Your task to perform on an android device: change timer sound Image 0: 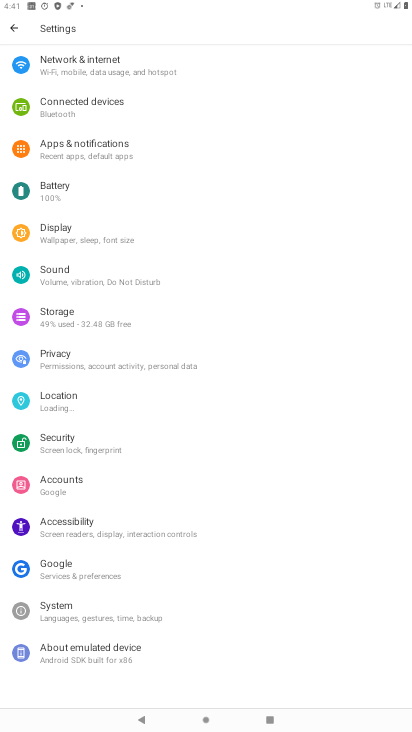
Step 0: press home button
Your task to perform on an android device: change timer sound Image 1: 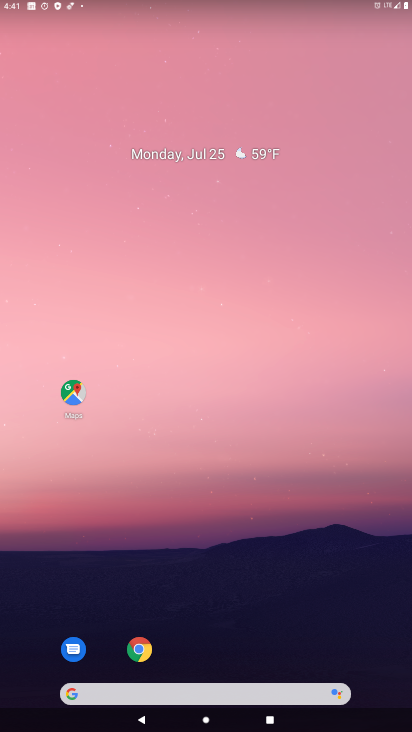
Step 1: drag from (239, 658) to (203, 8)
Your task to perform on an android device: change timer sound Image 2: 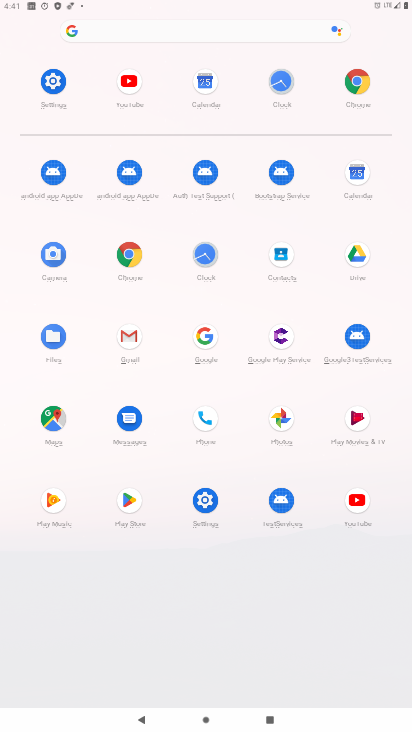
Step 2: click (282, 85)
Your task to perform on an android device: change timer sound Image 3: 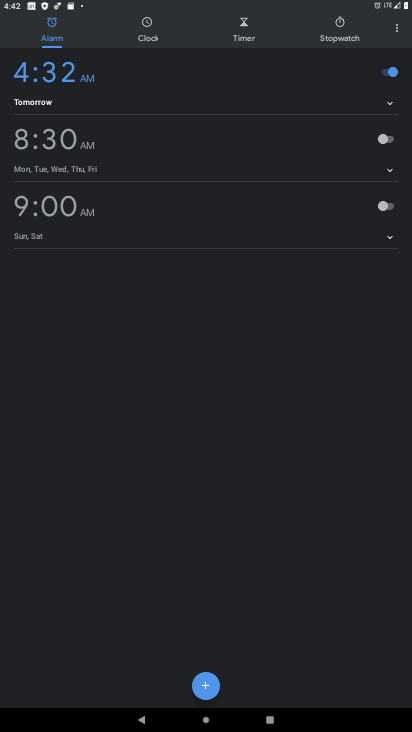
Step 3: click (390, 34)
Your task to perform on an android device: change timer sound Image 4: 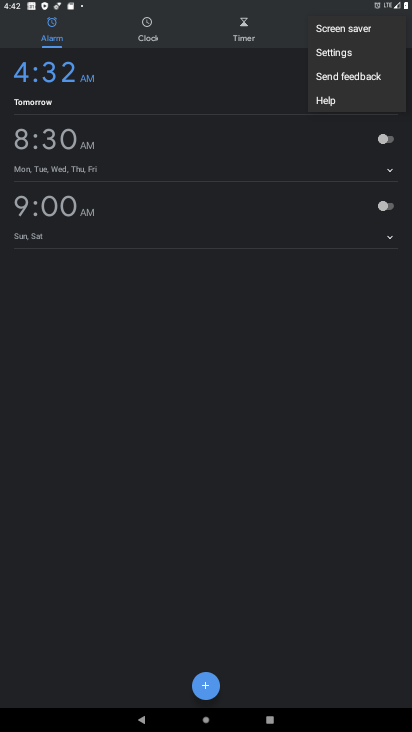
Step 4: click (361, 53)
Your task to perform on an android device: change timer sound Image 5: 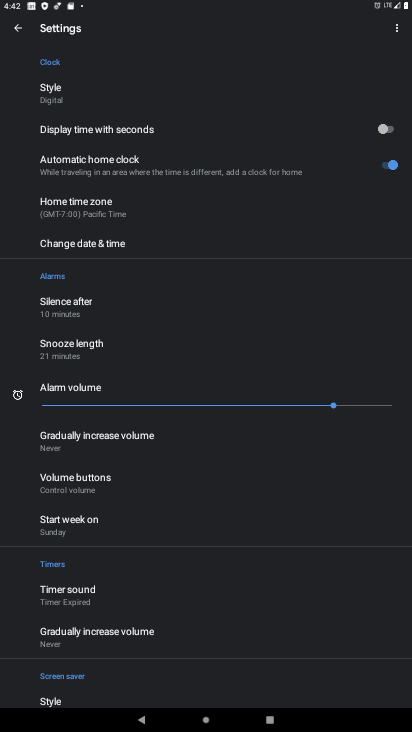
Step 5: click (129, 600)
Your task to perform on an android device: change timer sound Image 6: 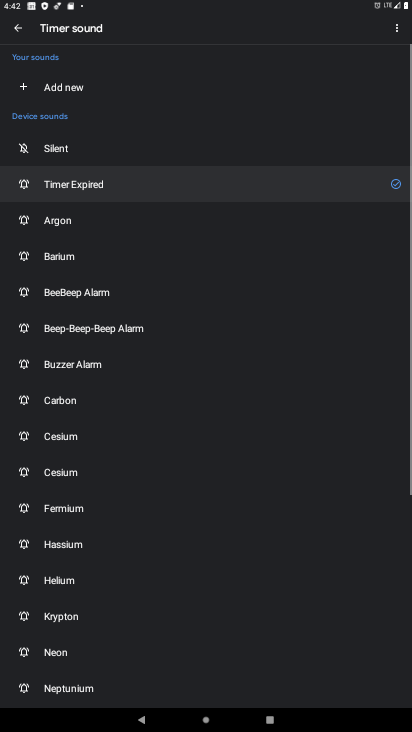
Step 6: click (221, 267)
Your task to perform on an android device: change timer sound Image 7: 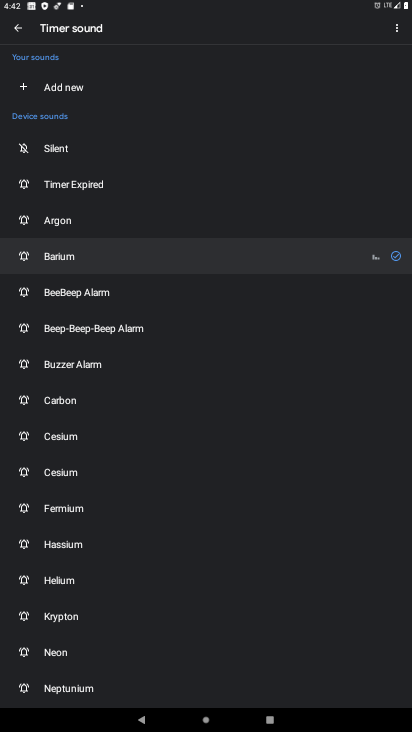
Step 7: task complete